Your task to perform on an android device: Open settings Image 0: 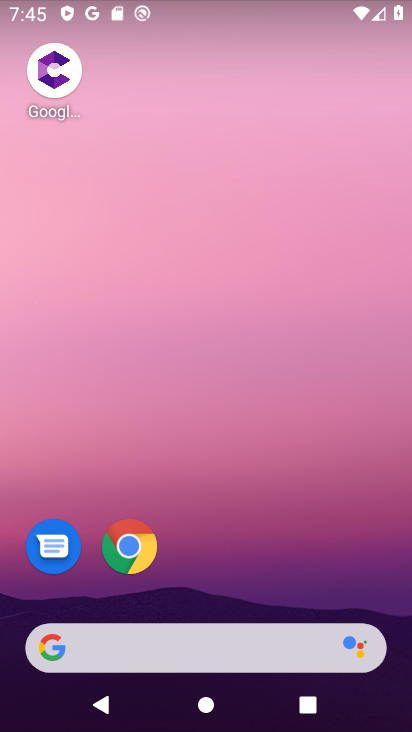
Step 0: drag from (263, 493) to (321, 27)
Your task to perform on an android device: Open settings Image 1: 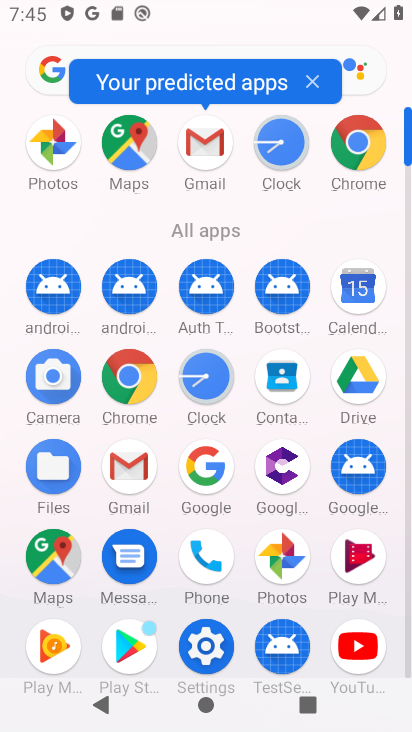
Step 1: click (213, 646)
Your task to perform on an android device: Open settings Image 2: 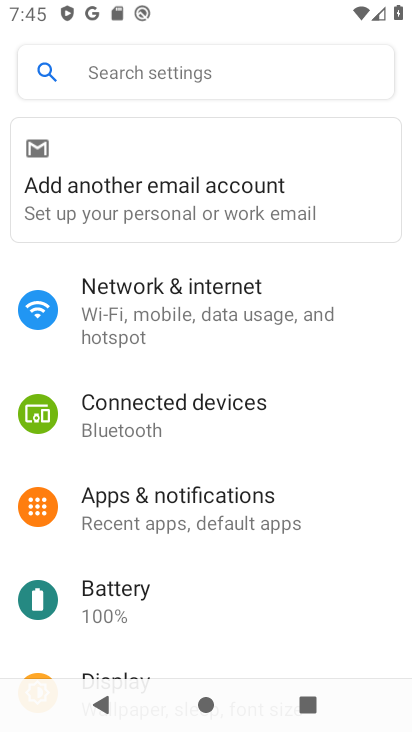
Step 2: task complete